Your task to perform on an android device: turn off javascript in the chrome app Image 0: 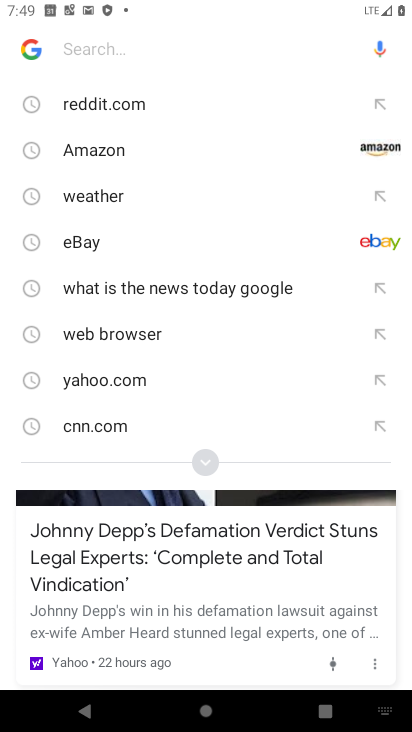
Step 0: press home button
Your task to perform on an android device: turn off javascript in the chrome app Image 1: 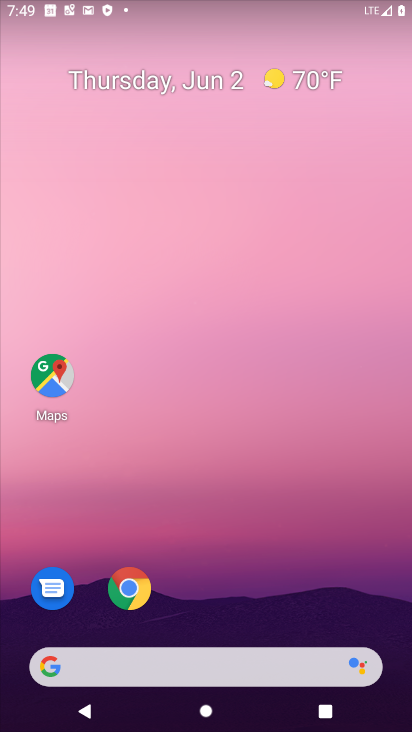
Step 1: click (146, 583)
Your task to perform on an android device: turn off javascript in the chrome app Image 2: 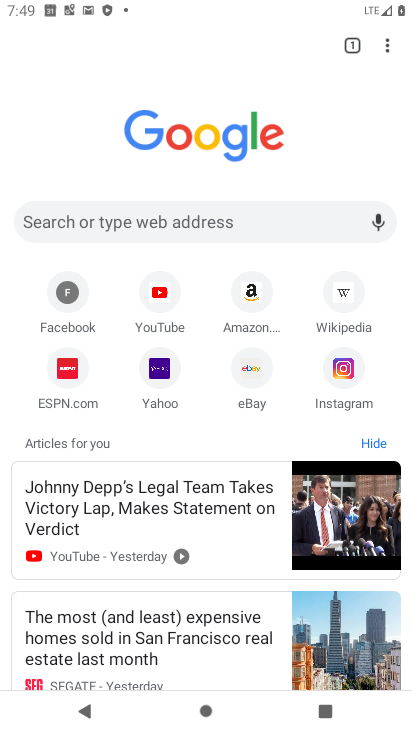
Step 2: click (387, 42)
Your task to perform on an android device: turn off javascript in the chrome app Image 3: 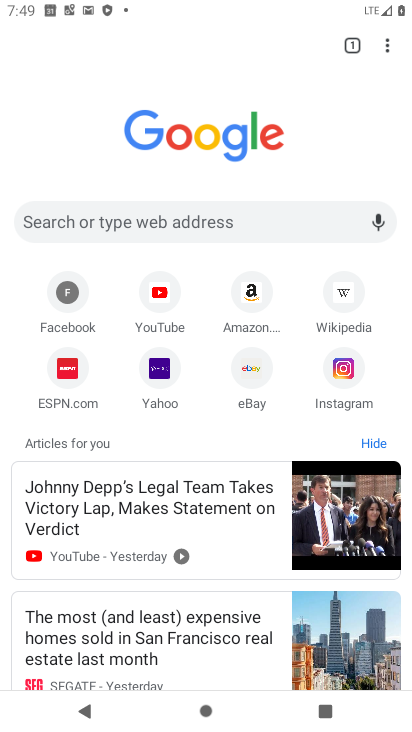
Step 3: click (391, 49)
Your task to perform on an android device: turn off javascript in the chrome app Image 4: 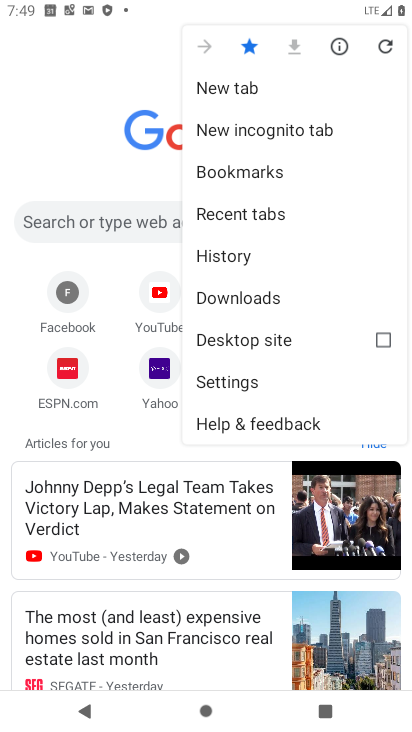
Step 4: click (237, 389)
Your task to perform on an android device: turn off javascript in the chrome app Image 5: 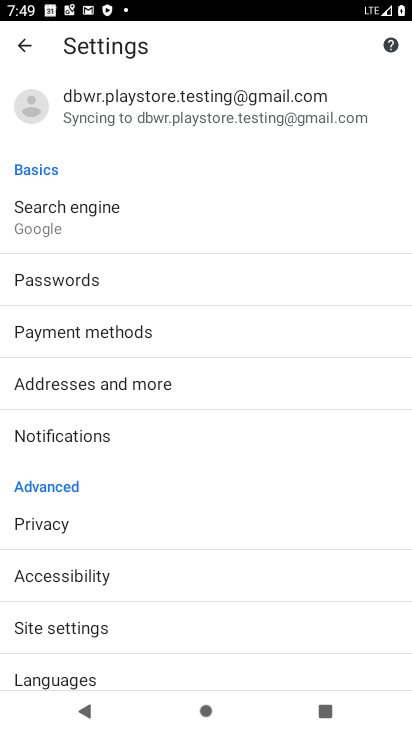
Step 5: click (92, 625)
Your task to perform on an android device: turn off javascript in the chrome app Image 6: 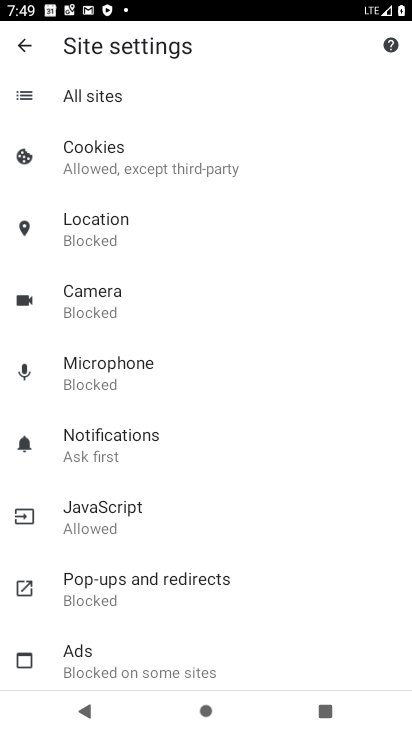
Step 6: click (110, 510)
Your task to perform on an android device: turn off javascript in the chrome app Image 7: 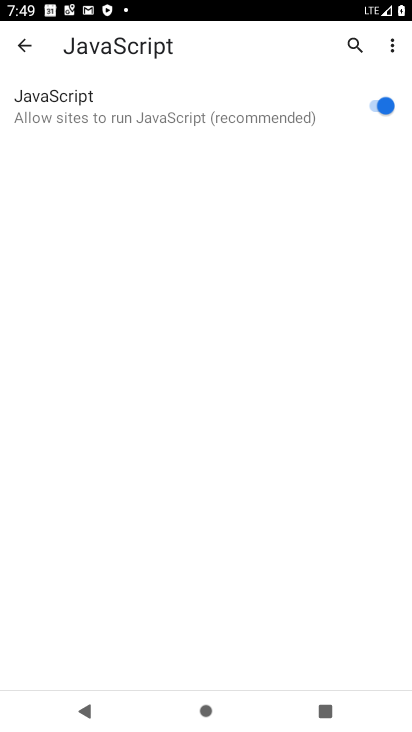
Step 7: click (362, 107)
Your task to perform on an android device: turn off javascript in the chrome app Image 8: 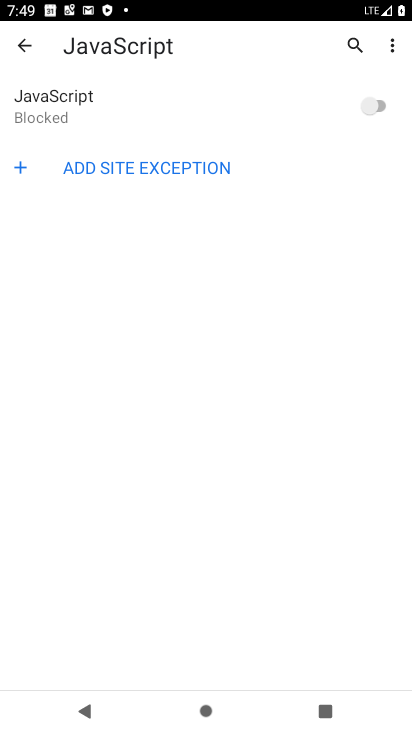
Step 8: task complete